Your task to perform on an android device: change timer sound Image 0: 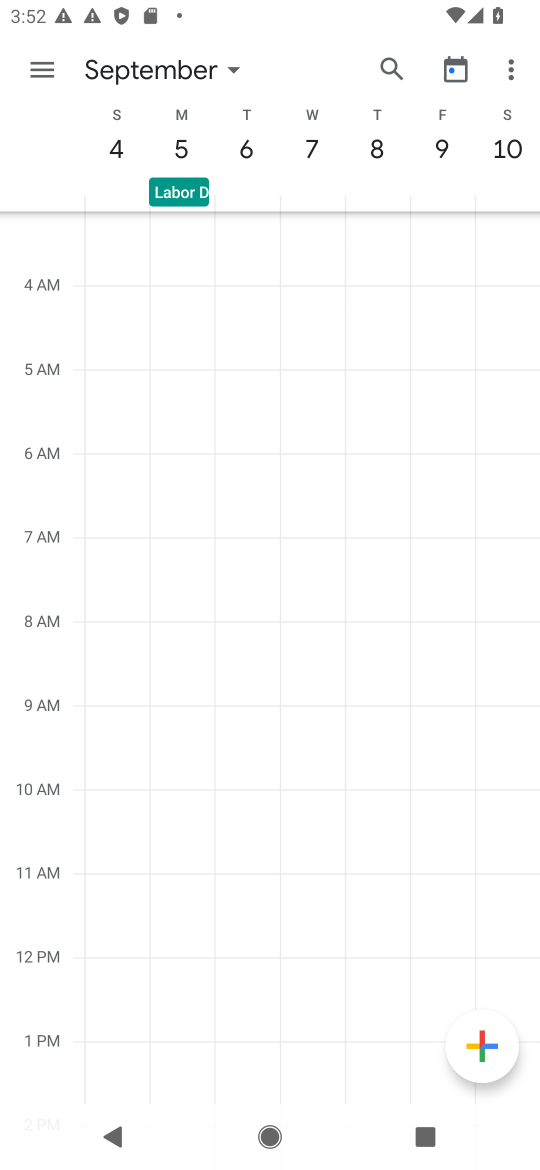
Step 0: press home button
Your task to perform on an android device: change timer sound Image 1: 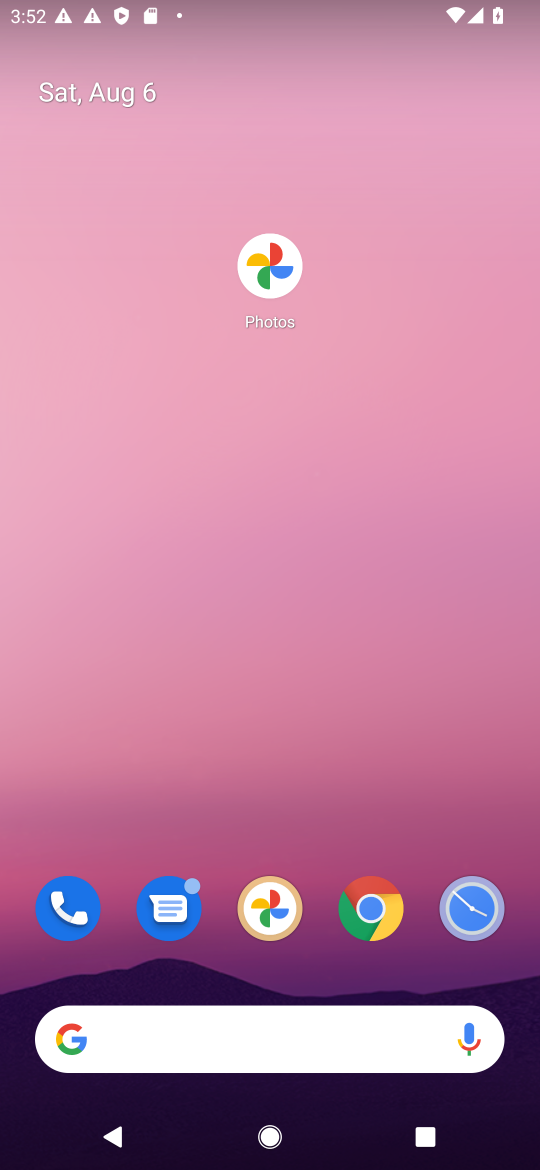
Step 1: drag from (250, 963) to (308, 261)
Your task to perform on an android device: change timer sound Image 2: 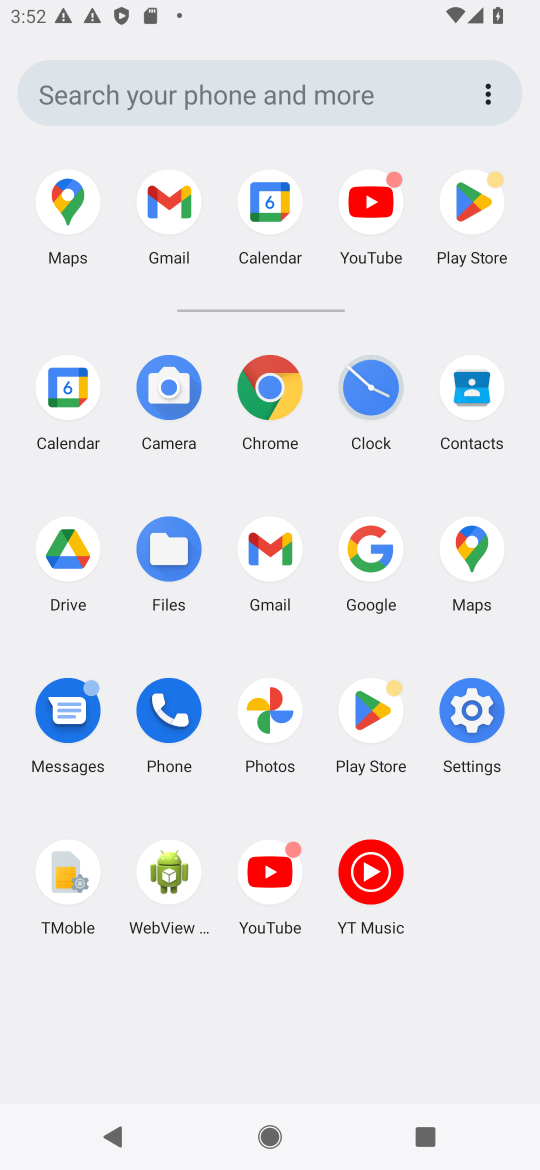
Step 2: click (374, 404)
Your task to perform on an android device: change timer sound Image 3: 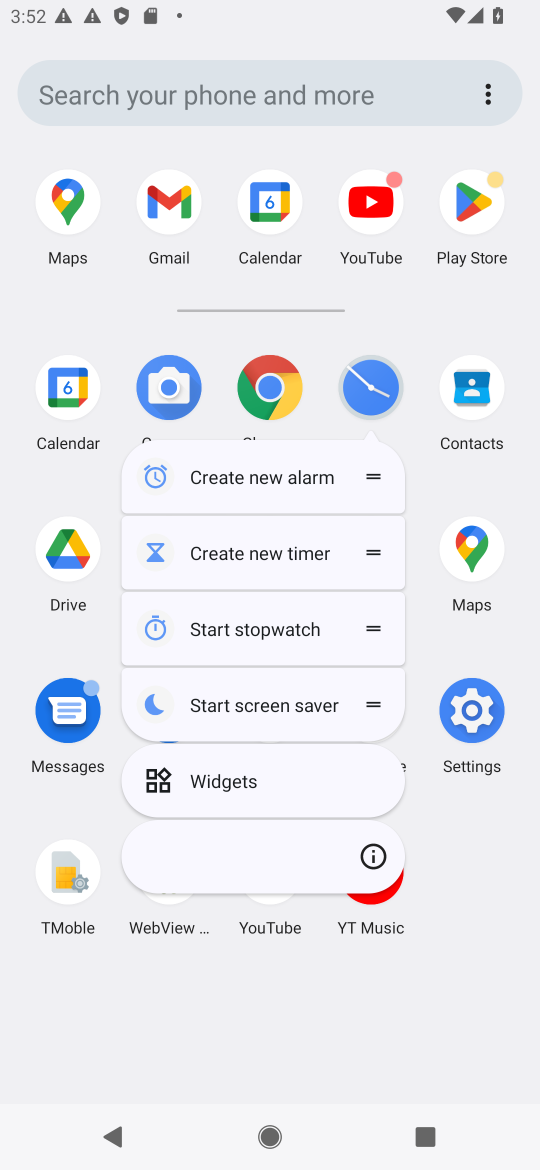
Step 3: click (368, 404)
Your task to perform on an android device: change timer sound Image 4: 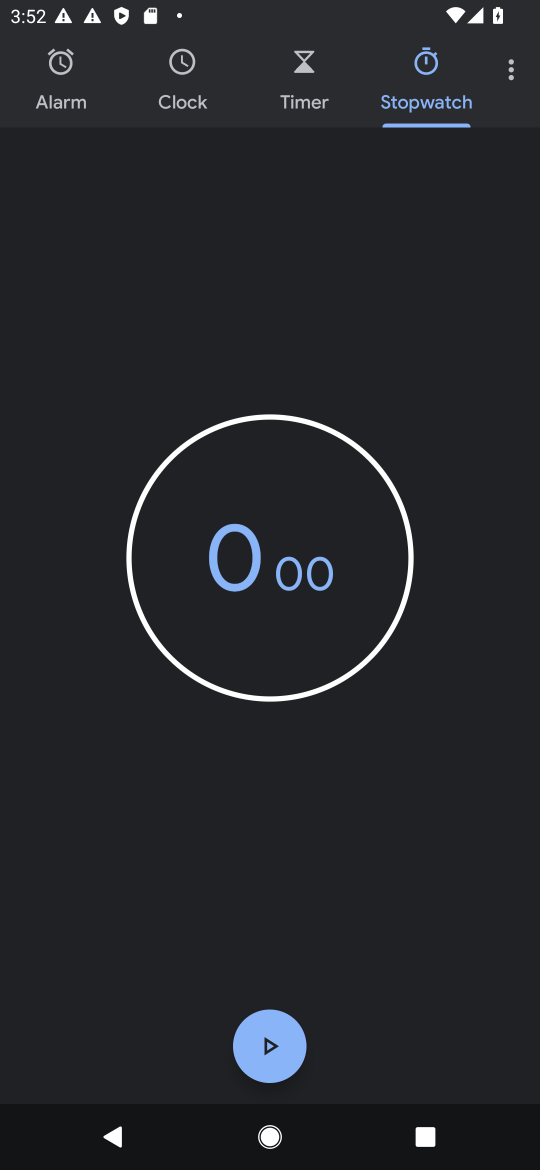
Step 4: click (509, 88)
Your task to perform on an android device: change timer sound Image 5: 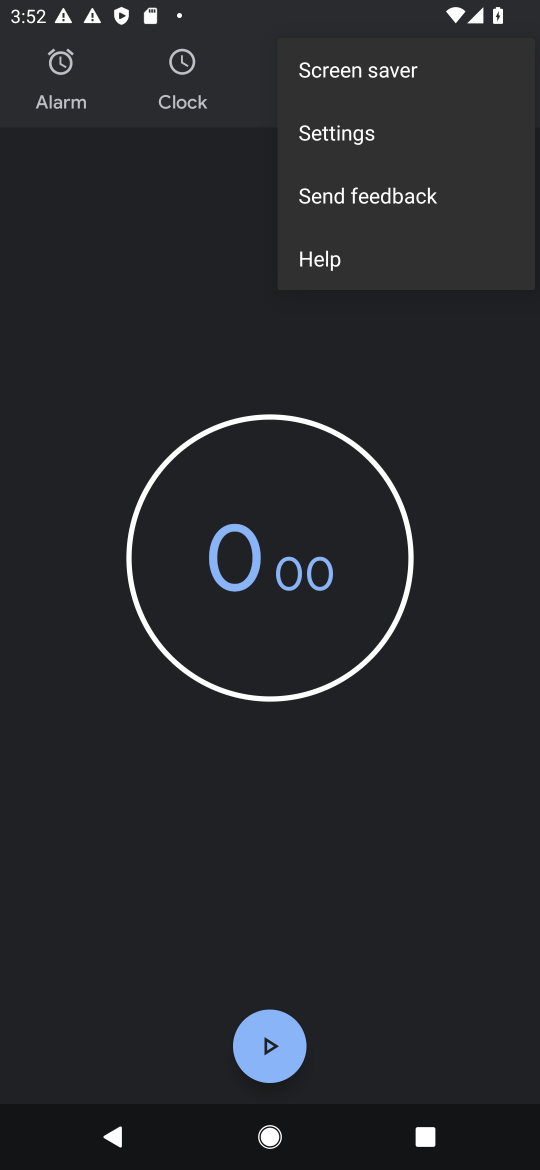
Step 5: click (324, 155)
Your task to perform on an android device: change timer sound Image 6: 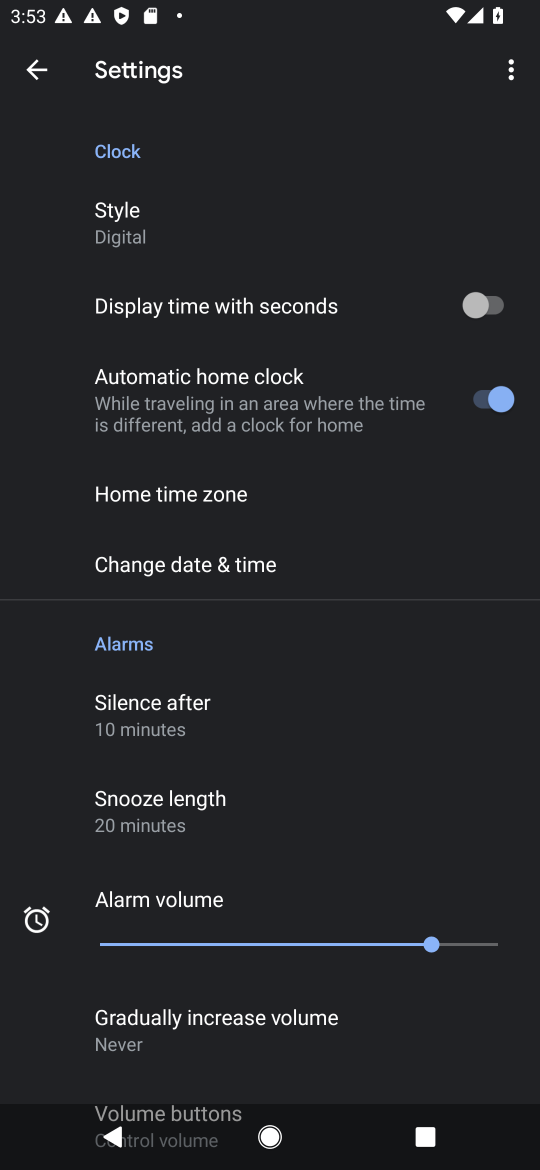
Step 6: drag from (183, 905) to (230, 644)
Your task to perform on an android device: change timer sound Image 7: 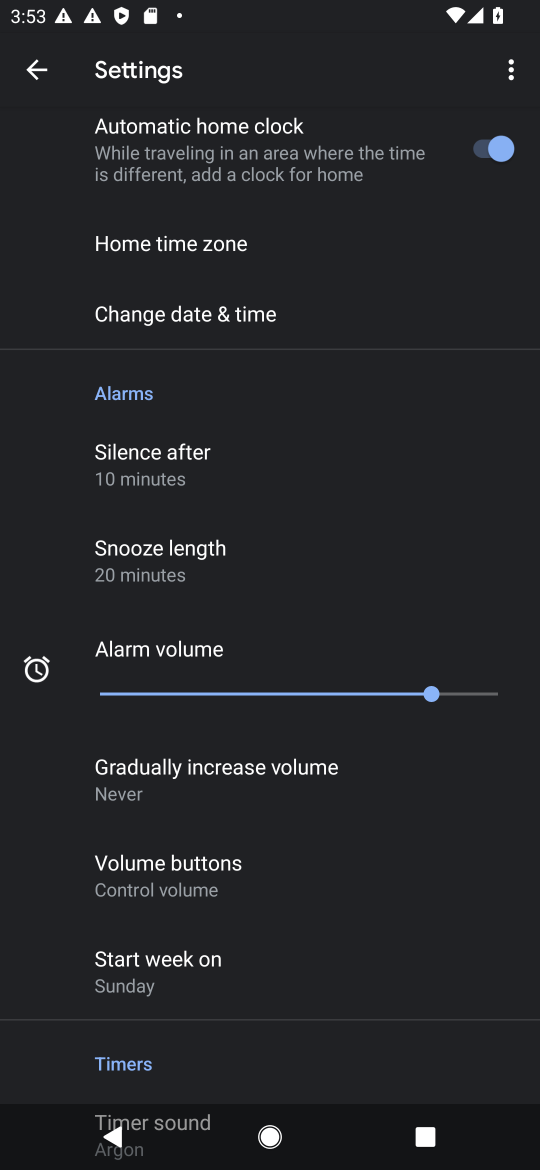
Step 7: drag from (175, 817) to (272, 414)
Your task to perform on an android device: change timer sound Image 8: 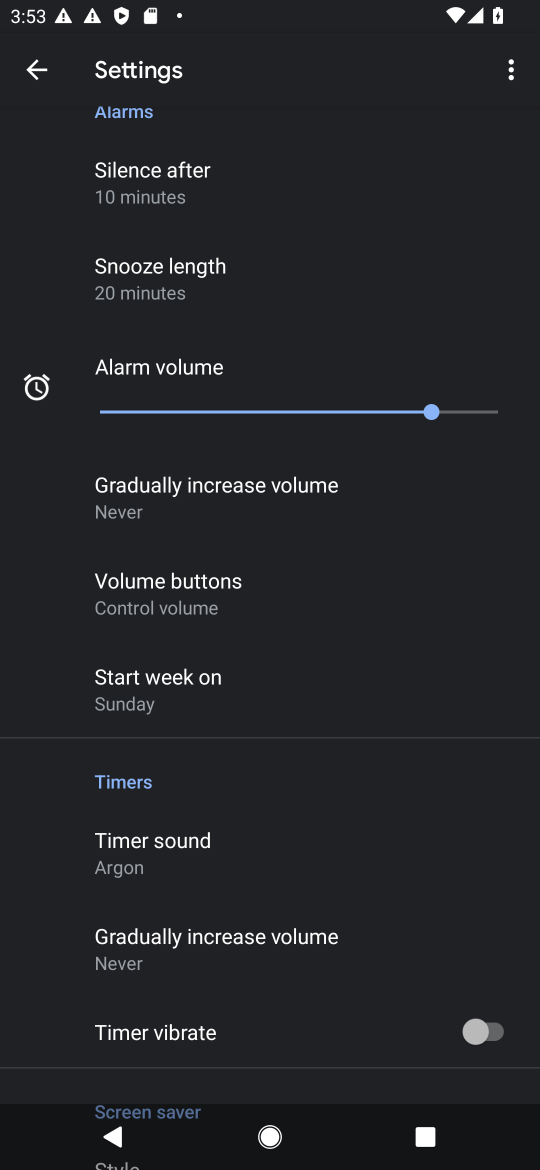
Step 8: click (183, 865)
Your task to perform on an android device: change timer sound Image 9: 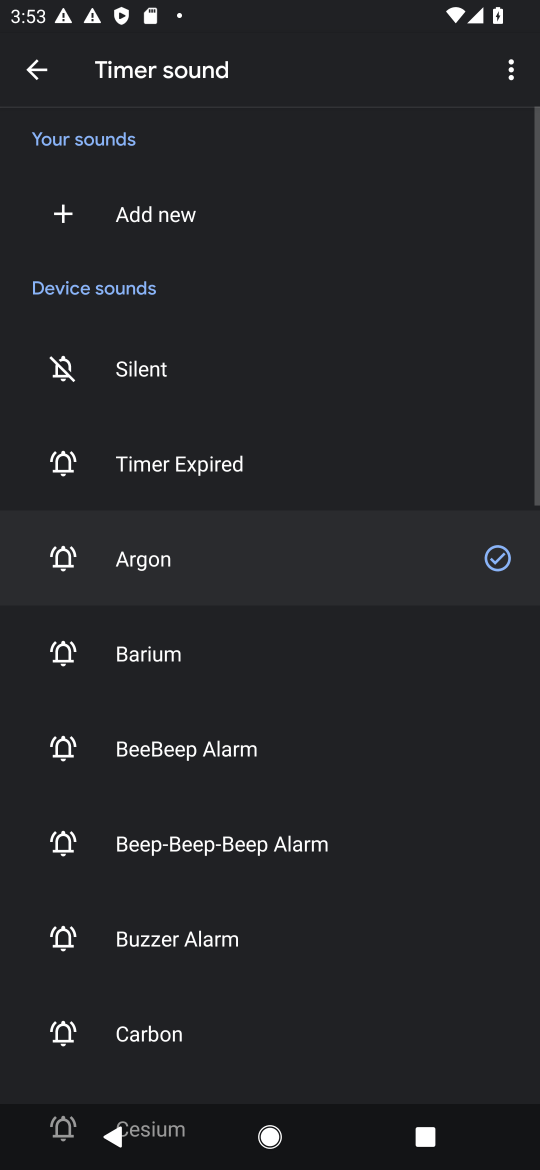
Step 9: click (175, 669)
Your task to perform on an android device: change timer sound Image 10: 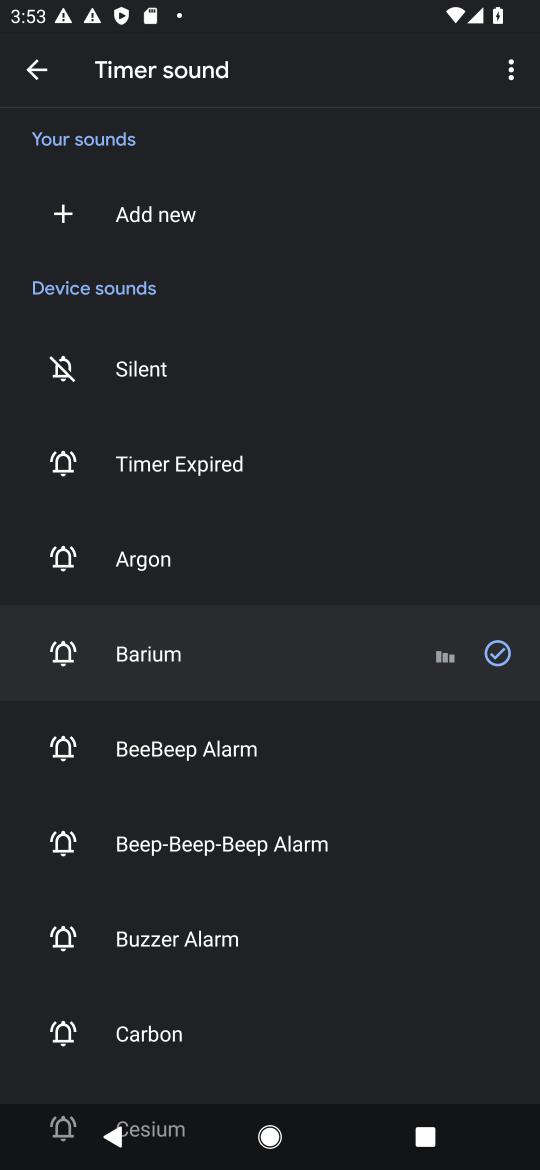
Step 10: task complete